Your task to perform on an android device: turn off wifi Image 0: 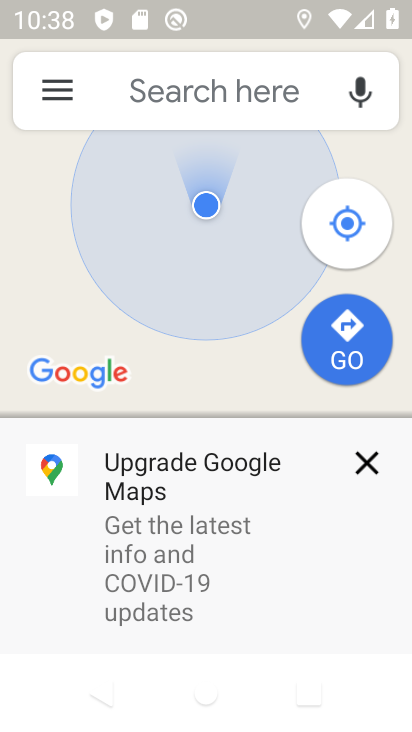
Step 0: drag from (246, 18) to (229, 379)
Your task to perform on an android device: turn off wifi Image 1: 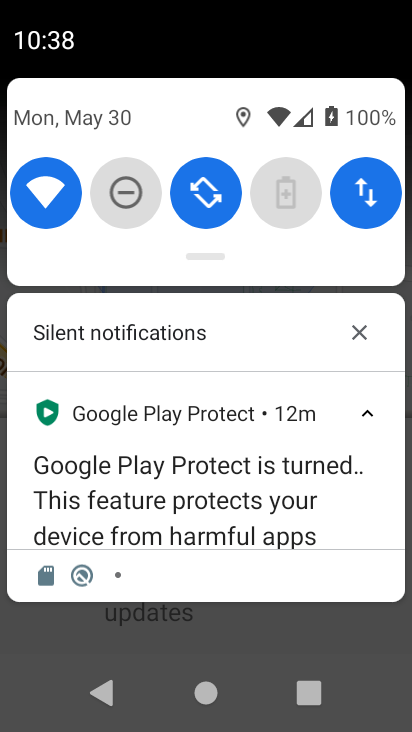
Step 1: click (48, 182)
Your task to perform on an android device: turn off wifi Image 2: 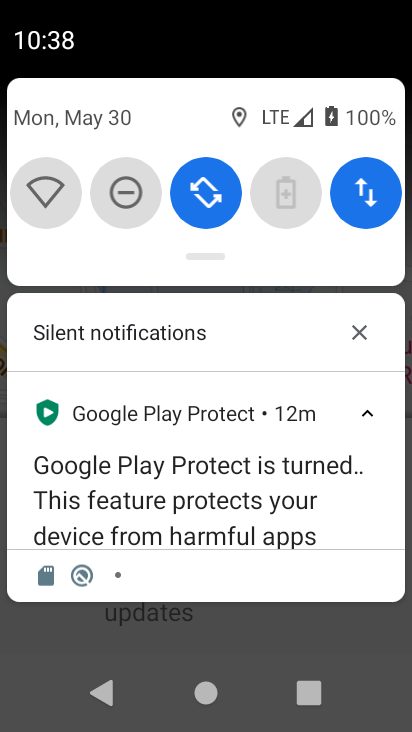
Step 2: task complete